Your task to perform on an android device: toggle show notifications on the lock screen Image 0: 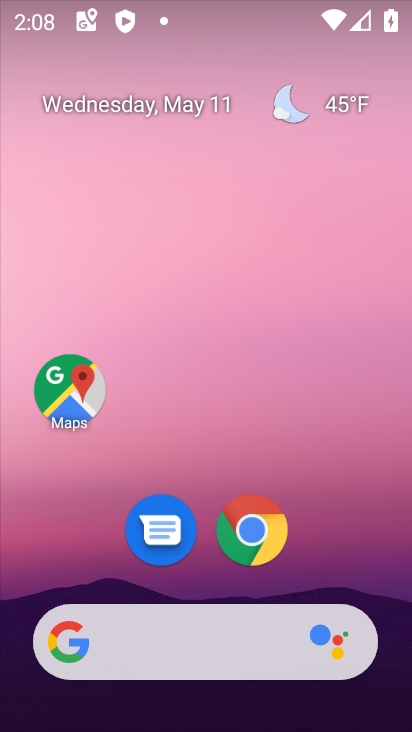
Step 0: click (209, 58)
Your task to perform on an android device: toggle show notifications on the lock screen Image 1: 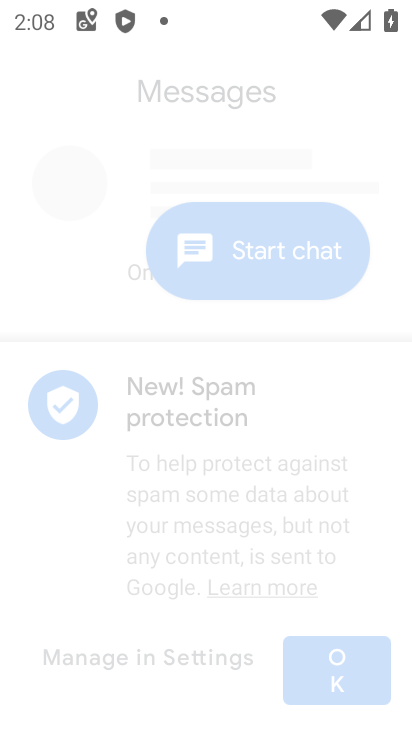
Step 1: drag from (326, 518) to (221, 45)
Your task to perform on an android device: toggle show notifications on the lock screen Image 2: 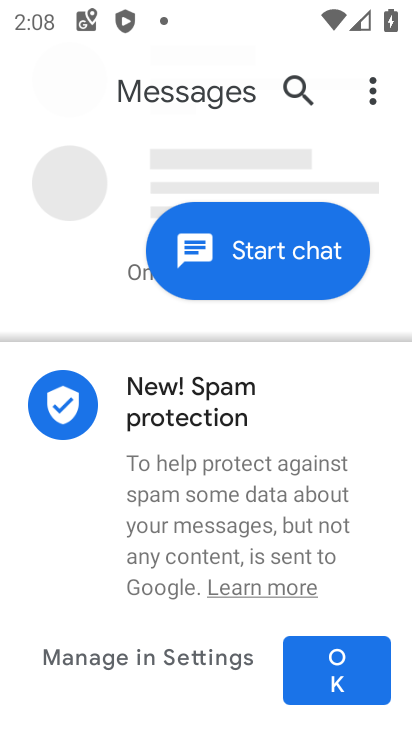
Step 2: press back button
Your task to perform on an android device: toggle show notifications on the lock screen Image 3: 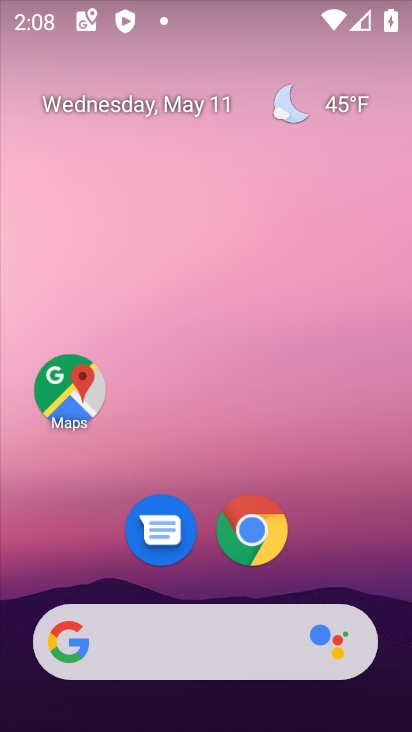
Step 3: drag from (347, 508) to (161, 200)
Your task to perform on an android device: toggle show notifications on the lock screen Image 4: 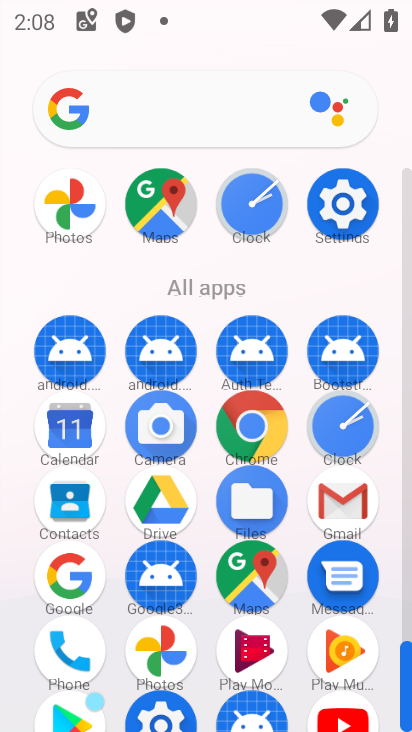
Step 4: click (348, 202)
Your task to perform on an android device: toggle show notifications on the lock screen Image 5: 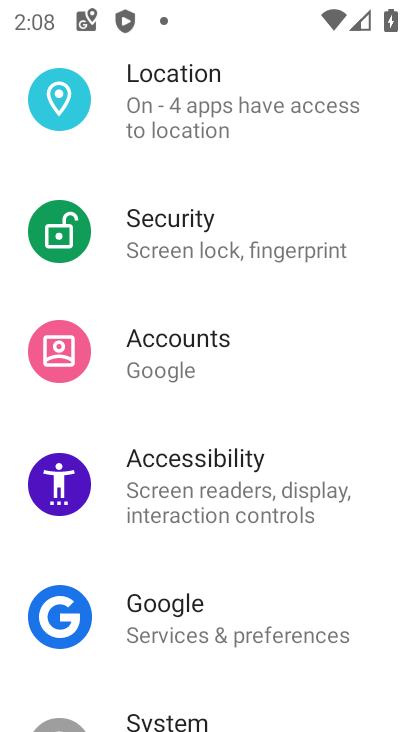
Step 5: click (179, 122)
Your task to perform on an android device: toggle show notifications on the lock screen Image 6: 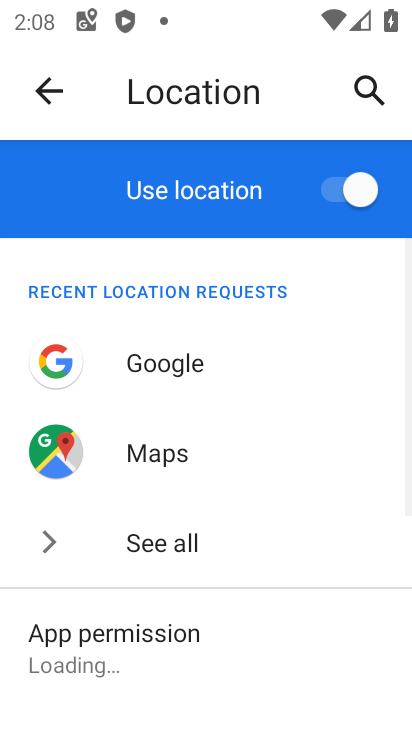
Step 6: drag from (197, 567) to (158, 210)
Your task to perform on an android device: toggle show notifications on the lock screen Image 7: 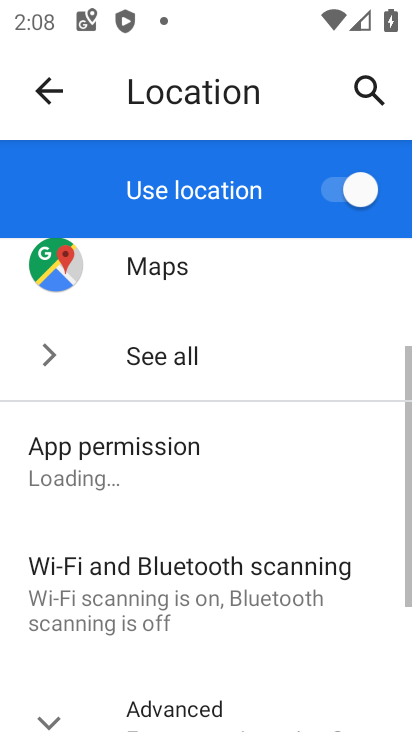
Step 7: drag from (158, 539) to (78, 145)
Your task to perform on an android device: toggle show notifications on the lock screen Image 8: 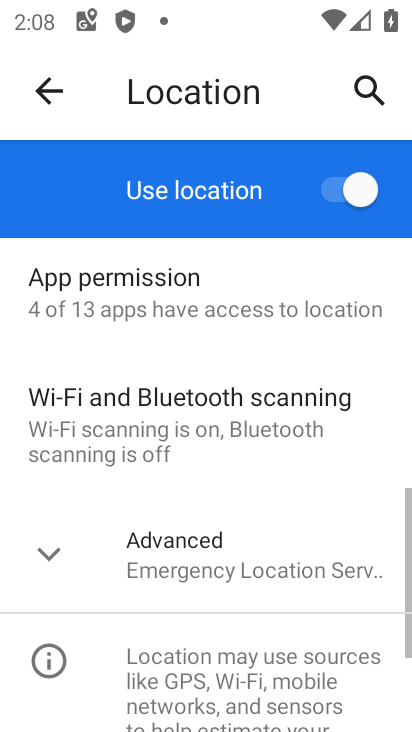
Step 8: drag from (161, 503) to (154, 170)
Your task to perform on an android device: toggle show notifications on the lock screen Image 9: 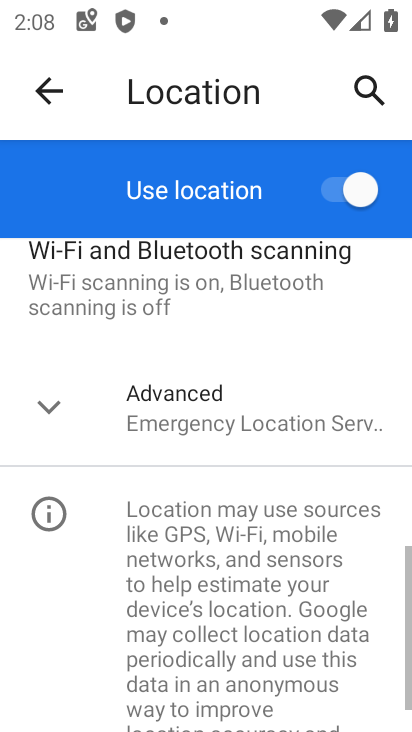
Step 9: drag from (159, 529) to (134, 189)
Your task to perform on an android device: toggle show notifications on the lock screen Image 10: 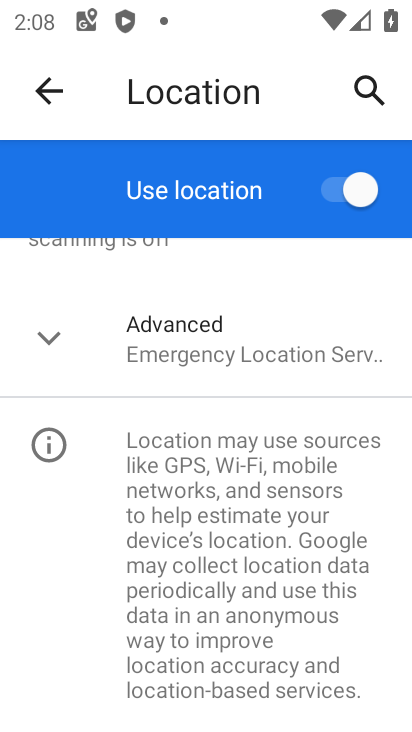
Step 10: drag from (205, 425) to (240, 681)
Your task to perform on an android device: toggle show notifications on the lock screen Image 11: 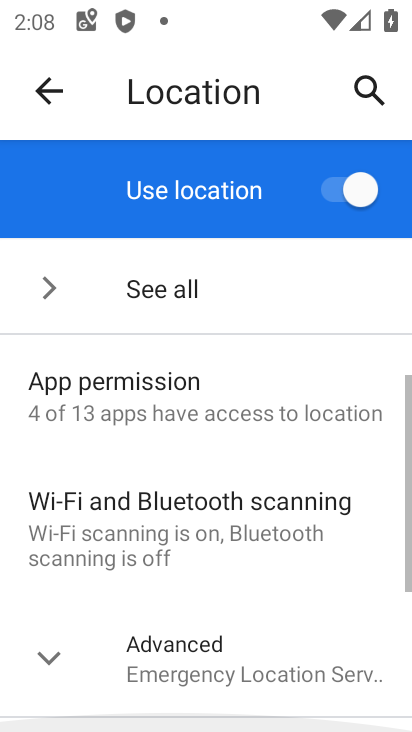
Step 11: drag from (277, 523) to (283, 569)
Your task to perform on an android device: toggle show notifications on the lock screen Image 12: 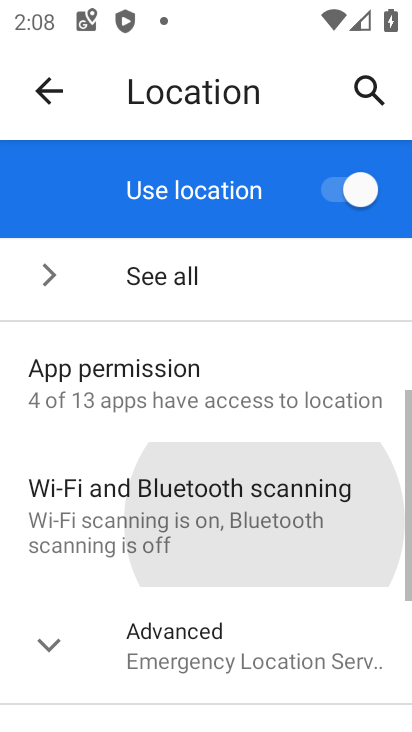
Step 12: drag from (219, 479) to (229, 558)
Your task to perform on an android device: toggle show notifications on the lock screen Image 13: 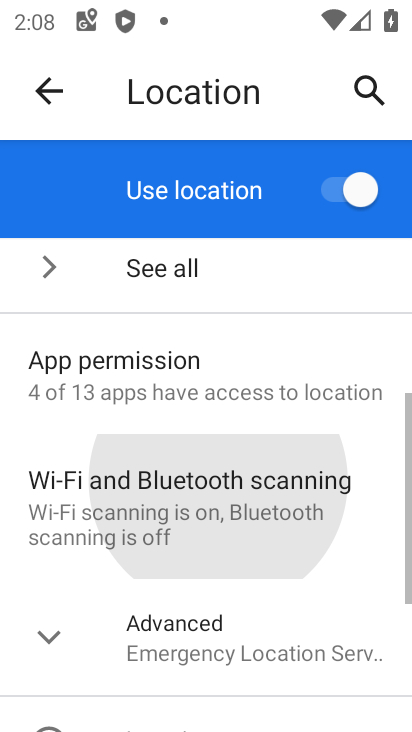
Step 13: drag from (210, 464) to (223, 518)
Your task to perform on an android device: toggle show notifications on the lock screen Image 14: 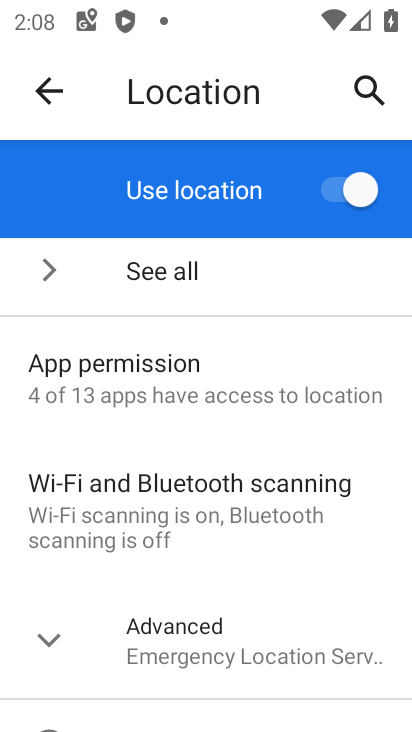
Step 14: click (93, 382)
Your task to perform on an android device: toggle show notifications on the lock screen Image 15: 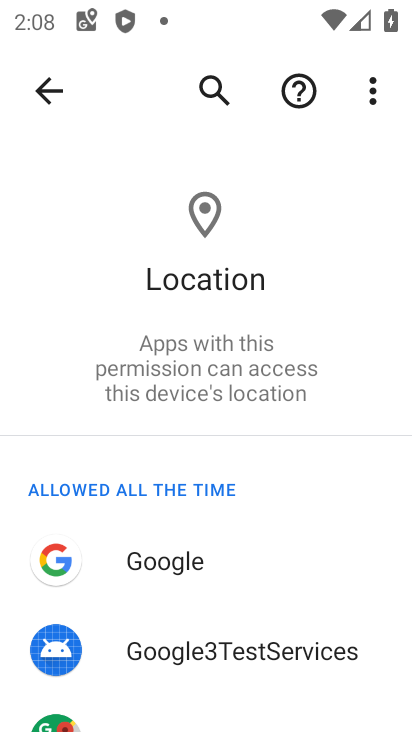
Step 15: click (51, 87)
Your task to perform on an android device: toggle show notifications on the lock screen Image 16: 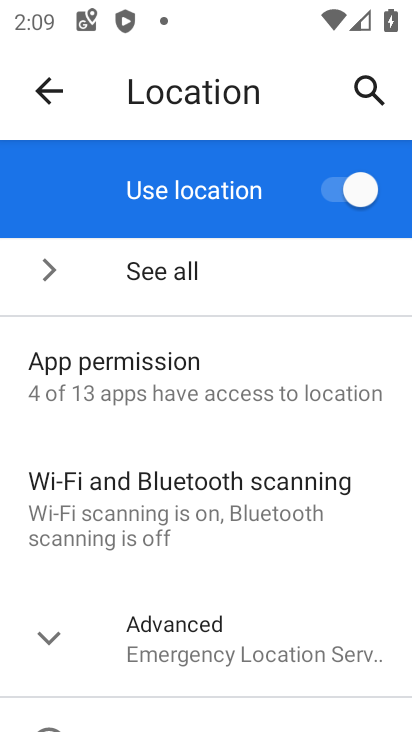
Step 16: click (28, 84)
Your task to perform on an android device: toggle show notifications on the lock screen Image 17: 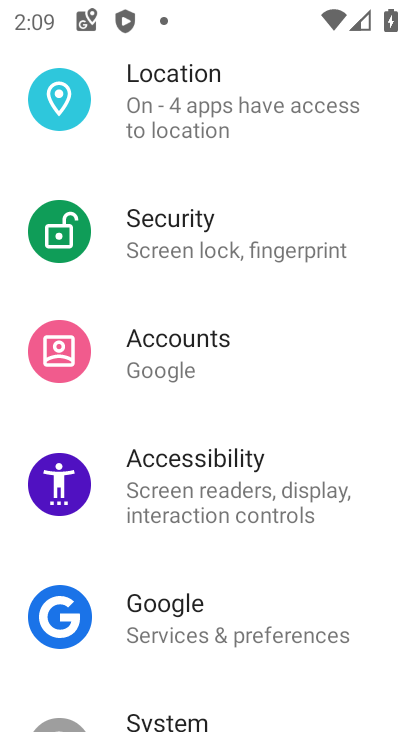
Step 17: drag from (205, 283) to (274, 548)
Your task to perform on an android device: toggle show notifications on the lock screen Image 18: 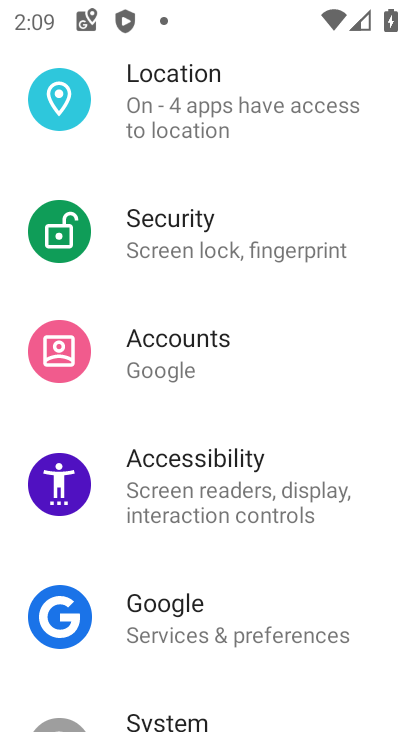
Step 18: click (252, 495)
Your task to perform on an android device: toggle show notifications on the lock screen Image 19: 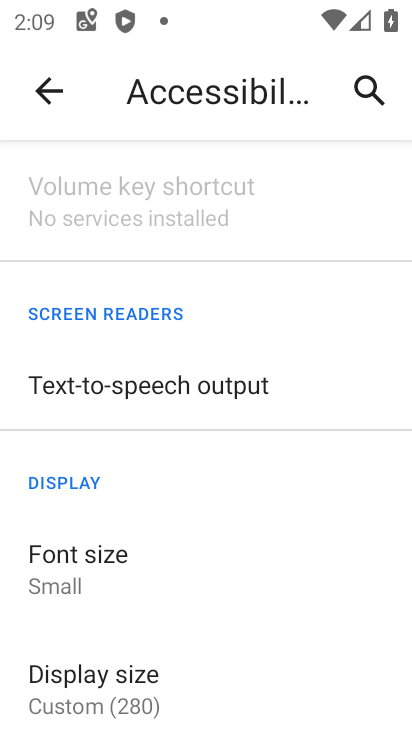
Step 19: click (53, 96)
Your task to perform on an android device: toggle show notifications on the lock screen Image 20: 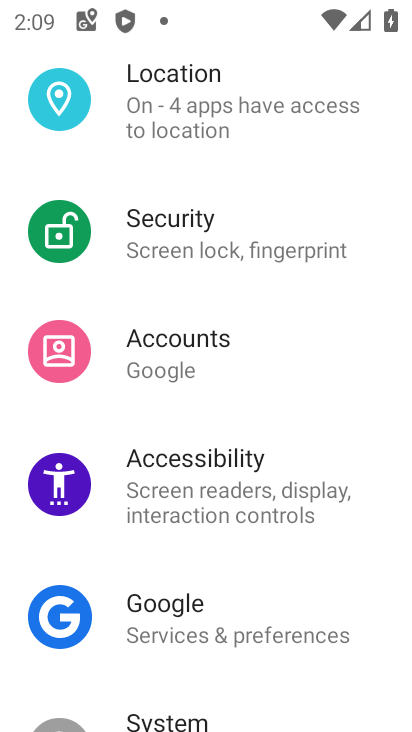
Step 20: drag from (175, 140) to (246, 476)
Your task to perform on an android device: toggle show notifications on the lock screen Image 21: 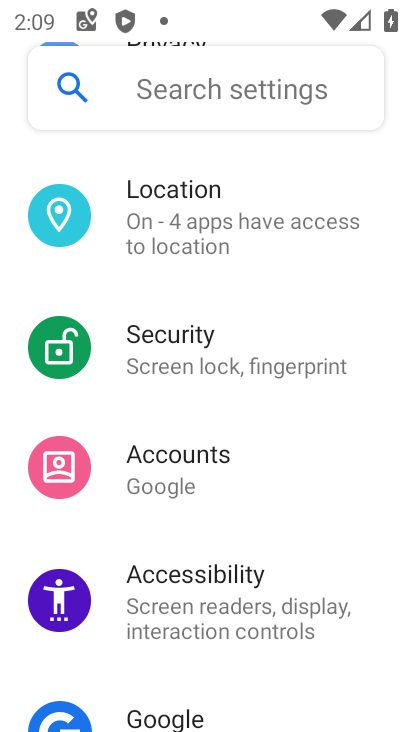
Step 21: drag from (227, 409) to (194, 557)
Your task to perform on an android device: toggle show notifications on the lock screen Image 22: 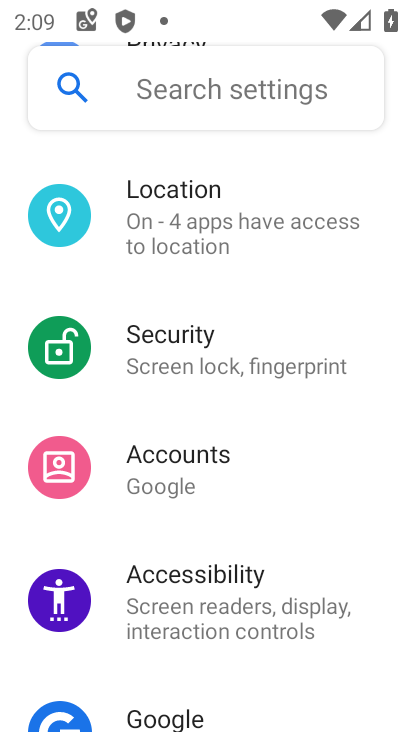
Step 22: drag from (146, 192) to (189, 523)
Your task to perform on an android device: toggle show notifications on the lock screen Image 23: 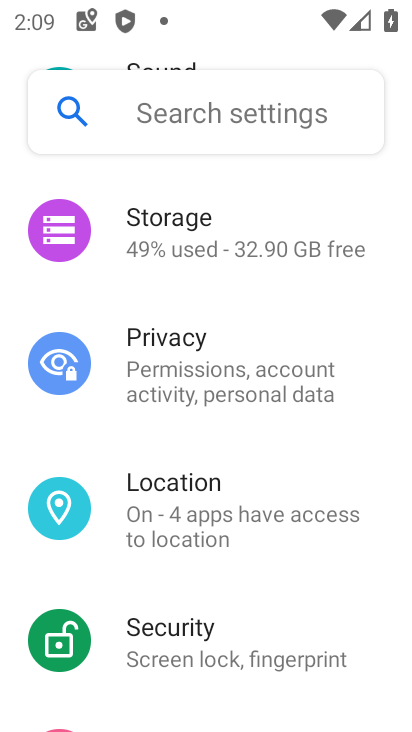
Step 23: drag from (173, 284) to (200, 714)
Your task to perform on an android device: toggle show notifications on the lock screen Image 24: 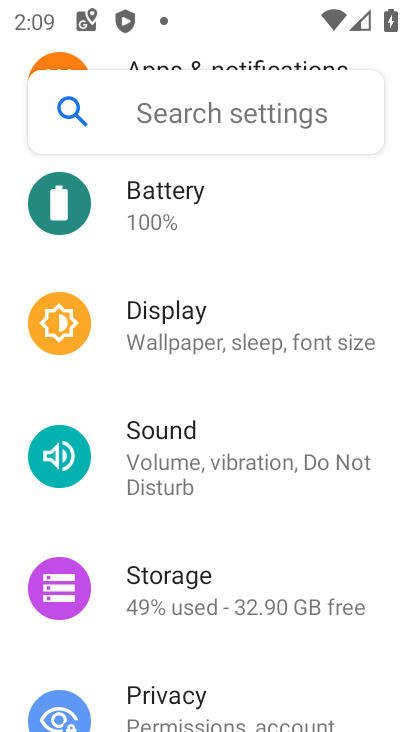
Step 24: drag from (201, 297) to (295, 671)
Your task to perform on an android device: toggle show notifications on the lock screen Image 25: 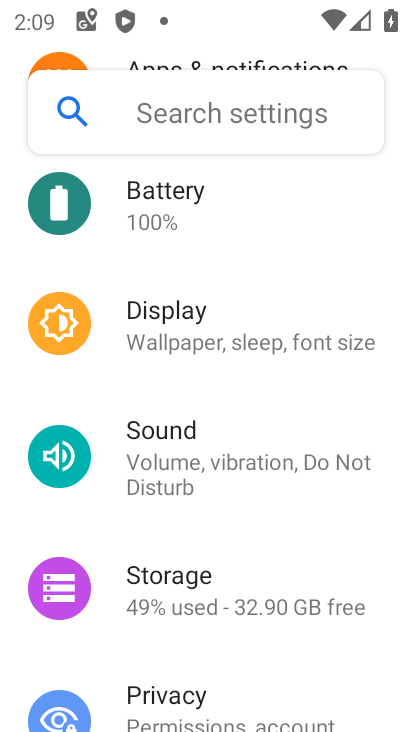
Step 25: drag from (183, 313) to (183, 670)
Your task to perform on an android device: toggle show notifications on the lock screen Image 26: 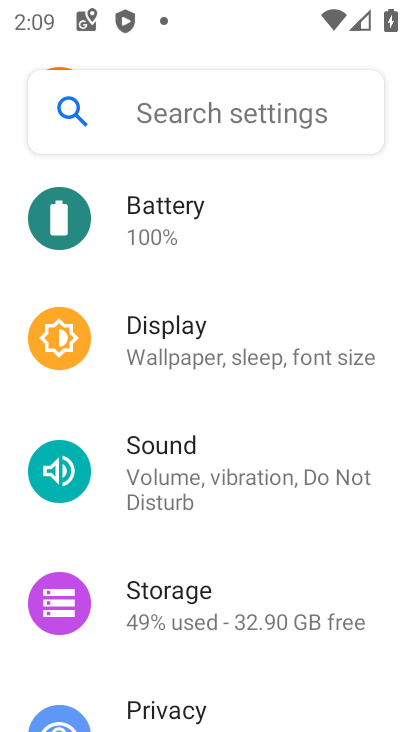
Step 26: drag from (188, 373) to (248, 687)
Your task to perform on an android device: toggle show notifications on the lock screen Image 27: 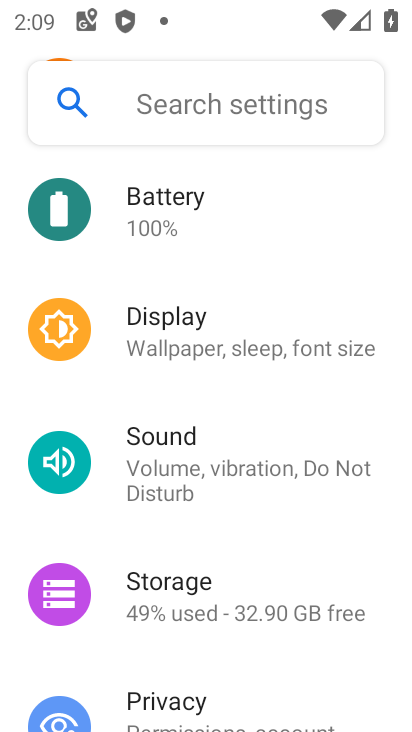
Step 27: drag from (170, 554) to (71, 695)
Your task to perform on an android device: toggle show notifications on the lock screen Image 28: 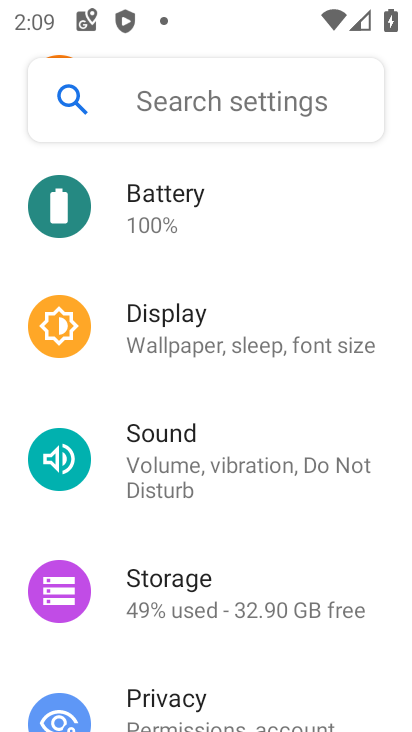
Step 28: drag from (197, 688) to (257, 699)
Your task to perform on an android device: toggle show notifications on the lock screen Image 29: 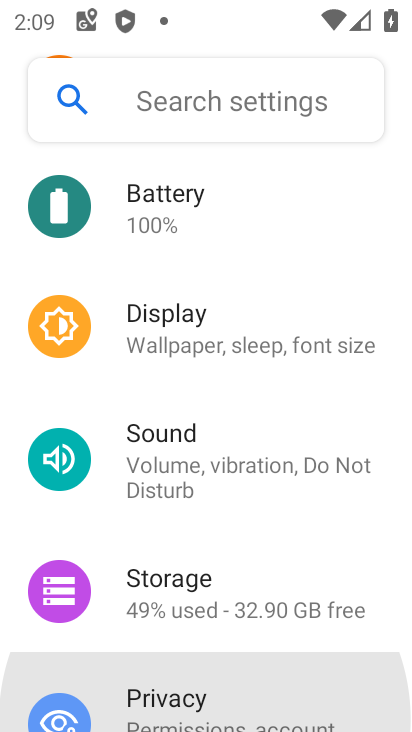
Step 29: drag from (261, 398) to (226, 685)
Your task to perform on an android device: toggle show notifications on the lock screen Image 30: 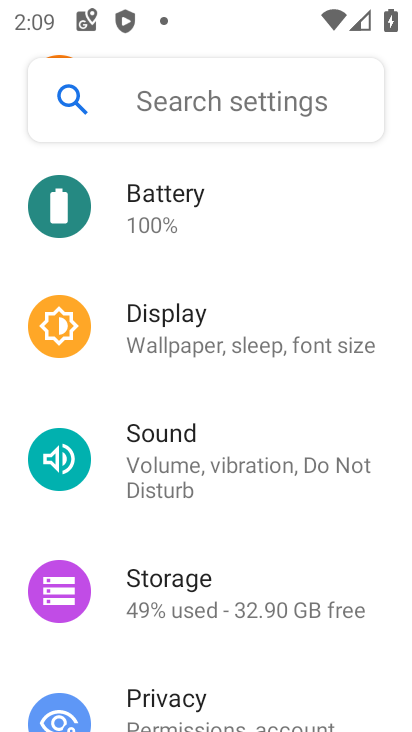
Step 30: drag from (125, 236) to (190, 622)
Your task to perform on an android device: toggle show notifications on the lock screen Image 31: 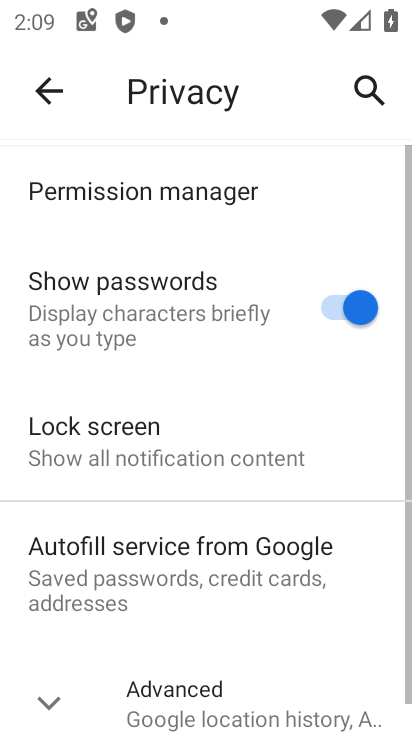
Step 31: drag from (263, 376) to (259, 710)
Your task to perform on an android device: toggle show notifications on the lock screen Image 32: 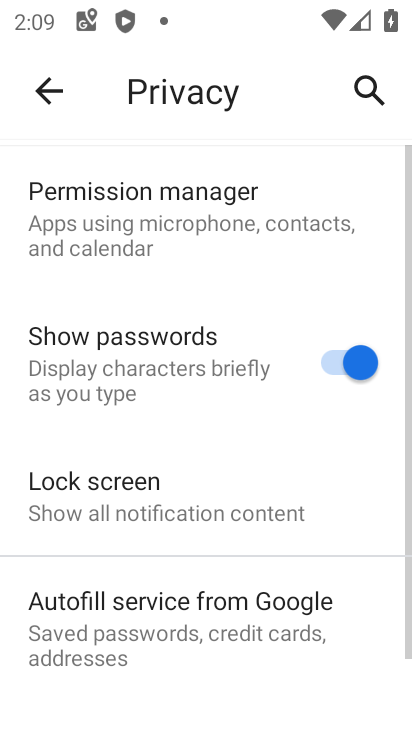
Step 32: click (43, 90)
Your task to perform on an android device: toggle show notifications on the lock screen Image 33: 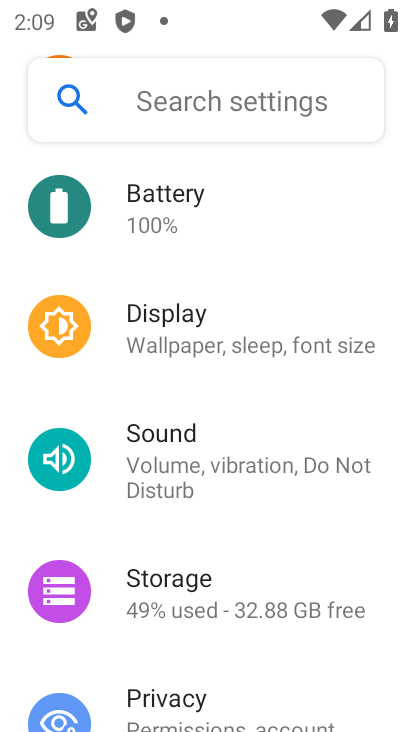
Step 33: drag from (174, 210) to (213, 605)
Your task to perform on an android device: toggle show notifications on the lock screen Image 34: 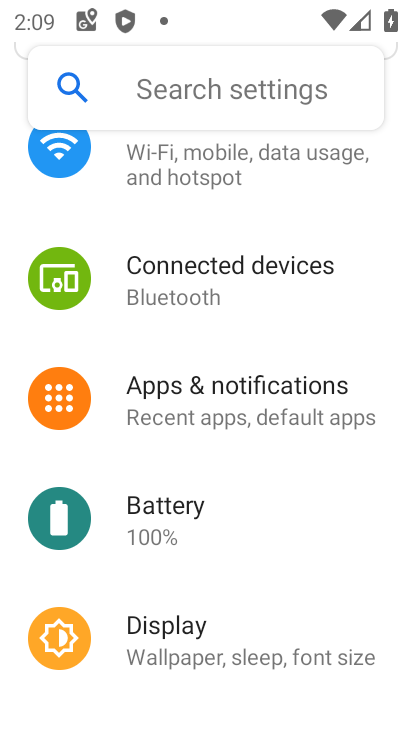
Step 34: drag from (198, 266) to (202, 613)
Your task to perform on an android device: toggle show notifications on the lock screen Image 35: 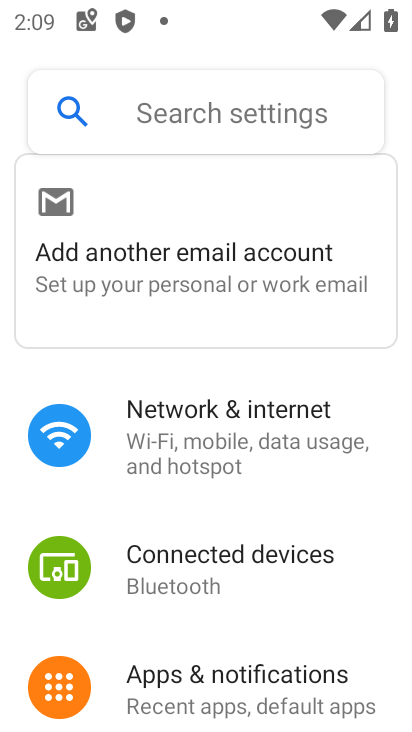
Step 35: click (205, 691)
Your task to perform on an android device: toggle show notifications on the lock screen Image 36: 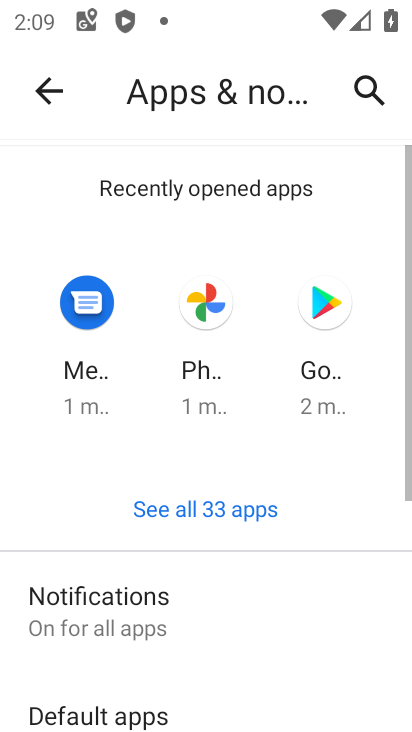
Step 36: drag from (265, 625) to (241, 122)
Your task to perform on an android device: toggle show notifications on the lock screen Image 37: 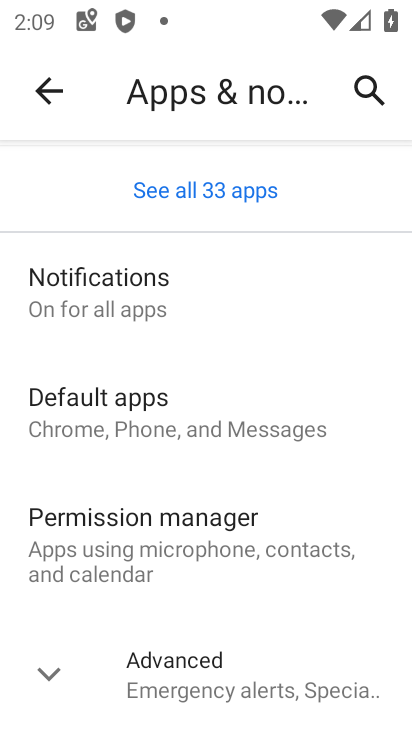
Step 37: click (95, 293)
Your task to perform on an android device: toggle show notifications on the lock screen Image 38: 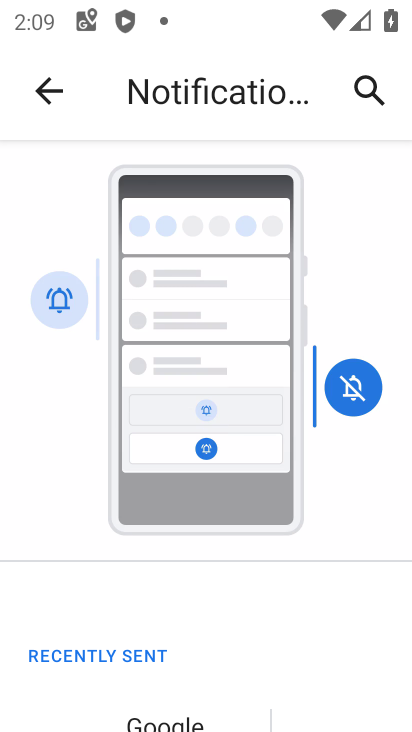
Step 38: drag from (233, 595) to (177, 154)
Your task to perform on an android device: toggle show notifications on the lock screen Image 39: 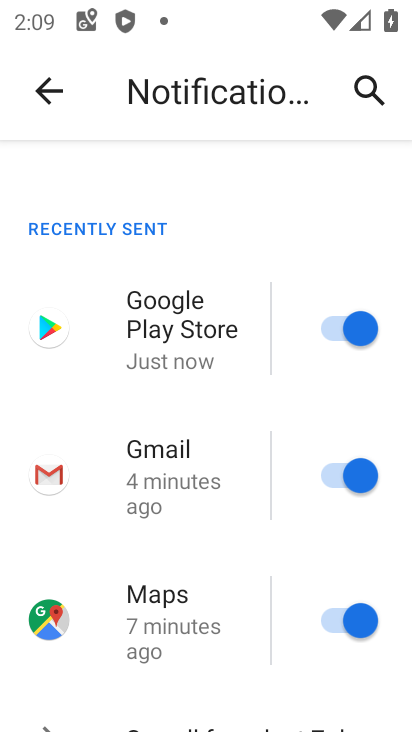
Step 39: drag from (227, 621) to (179, 279)
Your task to perform on an android device: toggle show notifications on the lock screen Image 40: 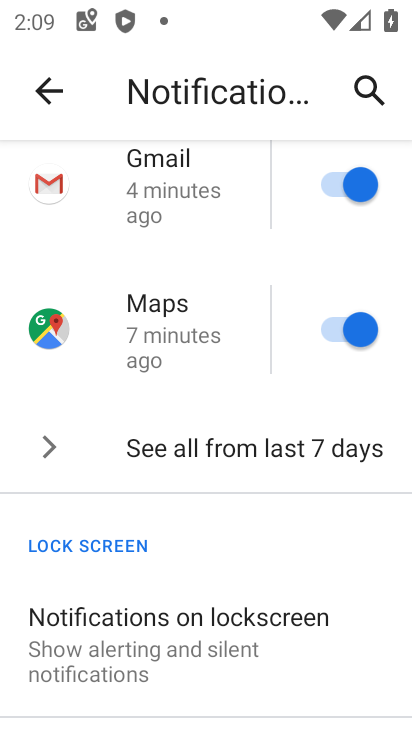
Step 40: drag from (270, 572) to (279, 198)
Your task to perform on an android device: toggle show notifications on the lock screen Image 41: 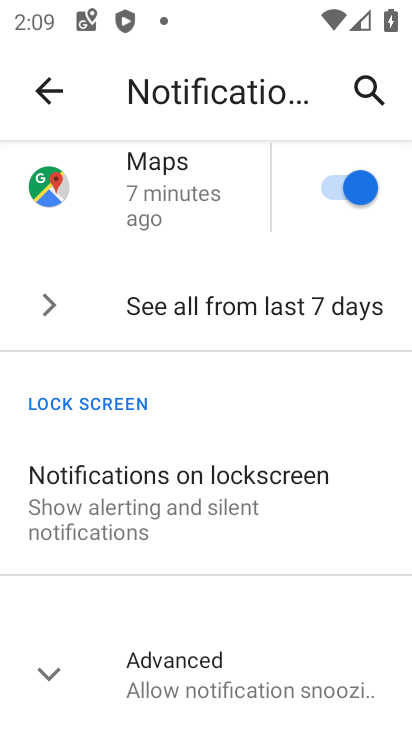
Step 41: click (141, 491)
Your task to perform on an android device: toggle show notifications on the lock screen Image 42: 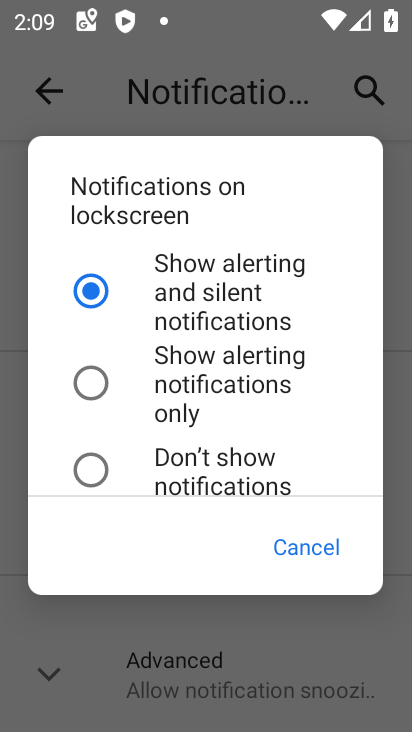
Step 42: task complete